Your task to perform on an android device: Go to location settings Image 0: 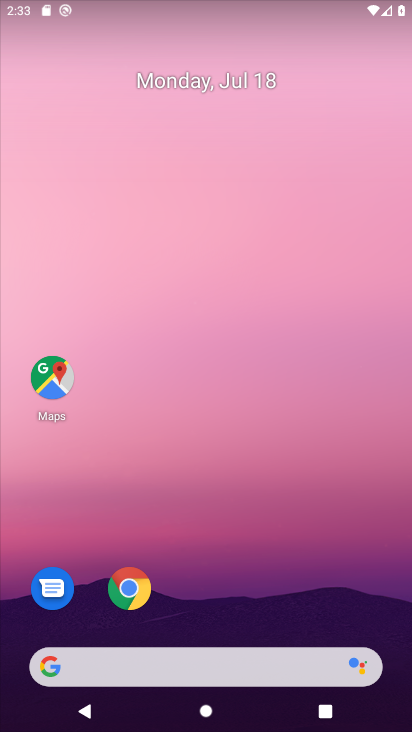
Step 0: drag from (297, 597) to (306, 109)
Your task to perform on an android device: Go to location settings Image 1: 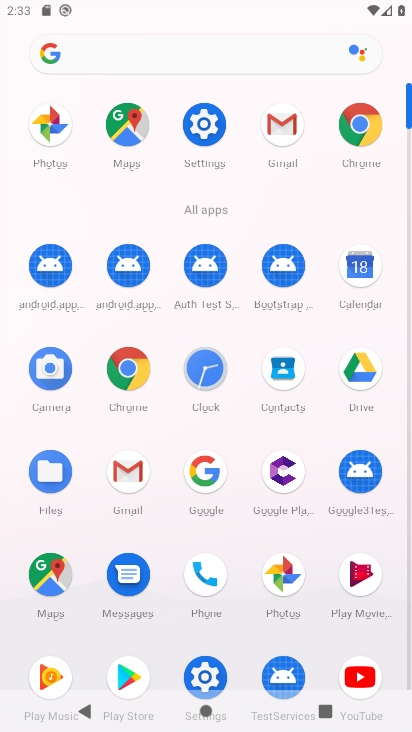
Step 1: click (198, 135)
Your task to perform on an android device: Go to location settings Image 2: 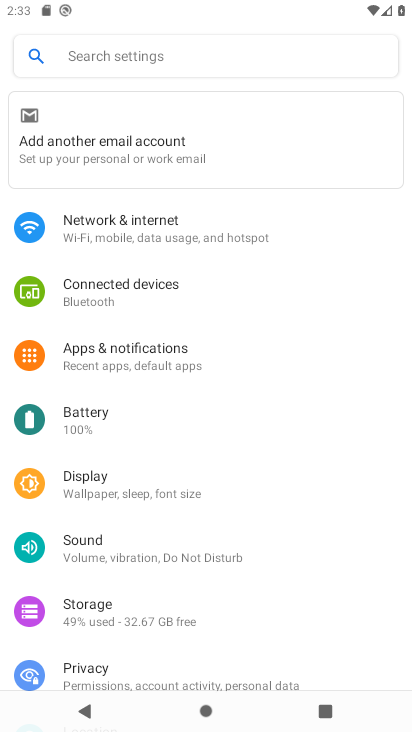
Step 2: drag from (118, 634) to (118, 207)
Your task to perform on an android device: Go to location settings Image 3: 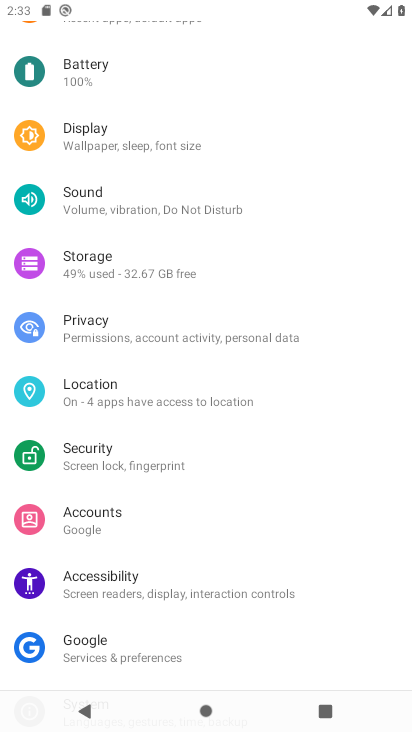
Step 3: click (110, 401)
Your task to perform on an android device: Go to location settings Image 4: 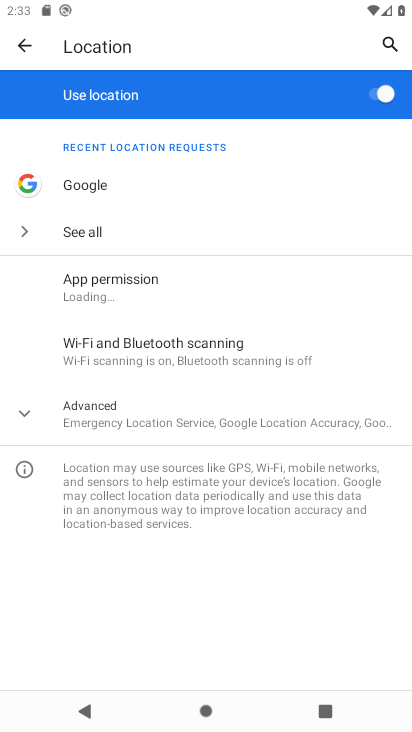
Step 4: task complete